Your task to perform on an android device: Open network settings Image 0: 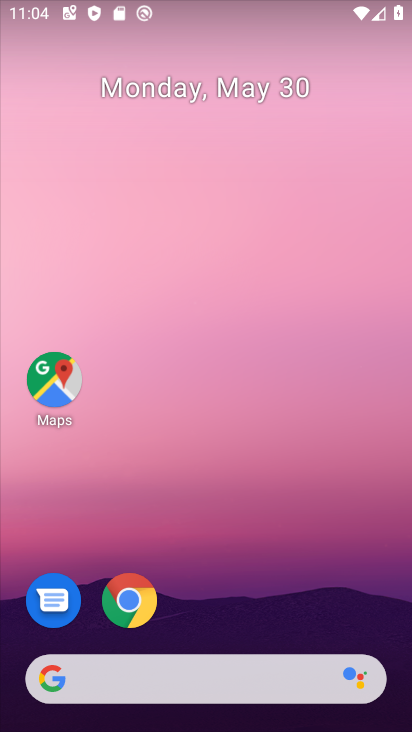
Step 0: drag from (230, 725) to (231, 88)
Your task to perform on an android device: Open network settings Image 1: 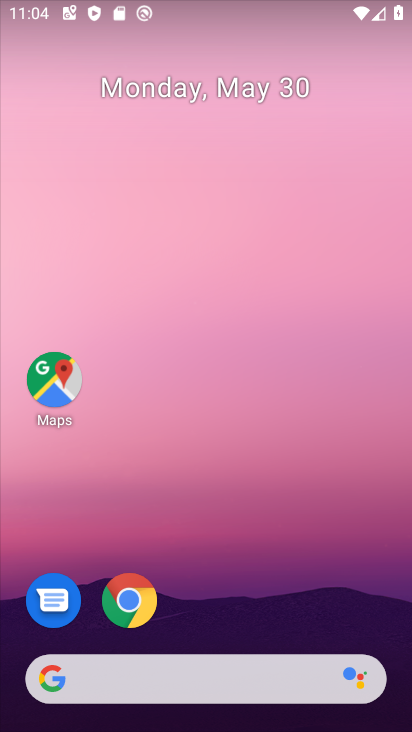
Step 1: drag from (212, 726) to (214, 94)
Your task to perform on an android device: Open network settings Image 2: 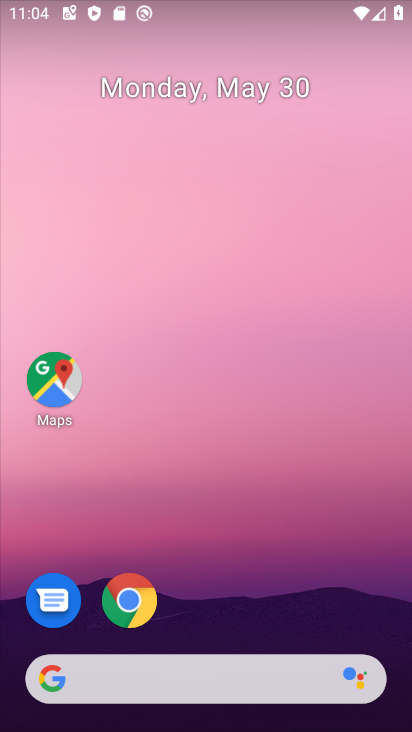
Step 2: drag from (243, 723) to (225, 36)
Your task to perform on an android device: Open network settings Image 3: 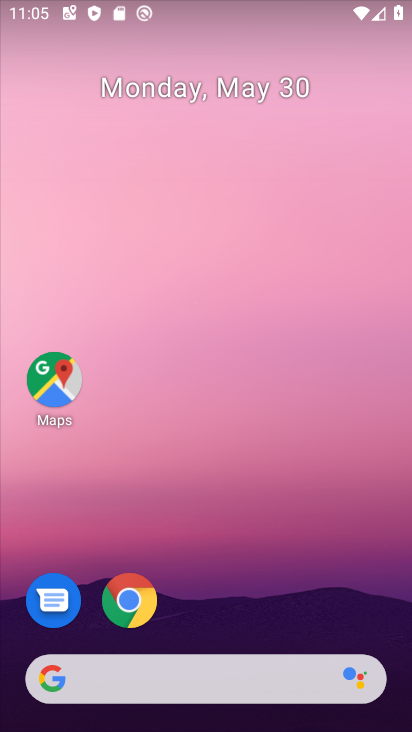
Step 3: drag from (243, 723) to (248, 41)
Your task to perform on an android device: Open network settings Image 4: 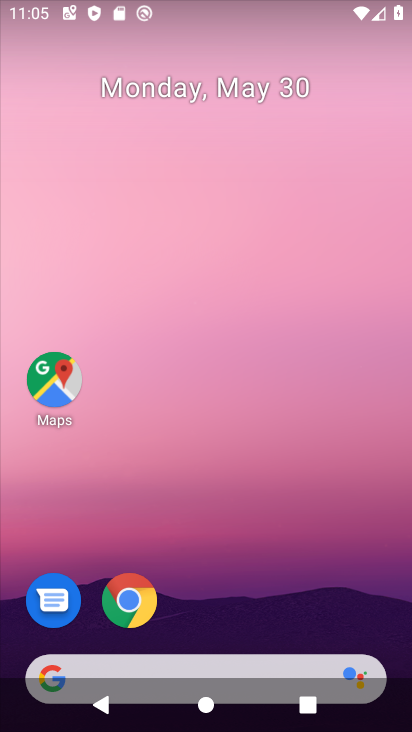
Step 4: drag from (220, 710) to (217, 139)
Your task to perform on an android device: Open network settings Image 5: 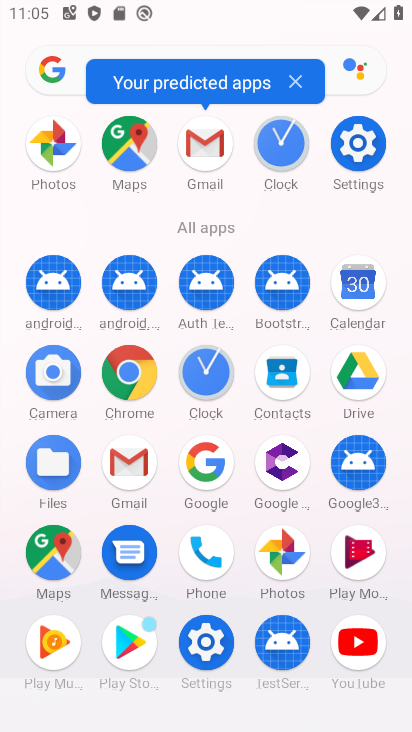
Step 5: click (350, 150)
Your task to perform on an android device: Open network settings Image 6: 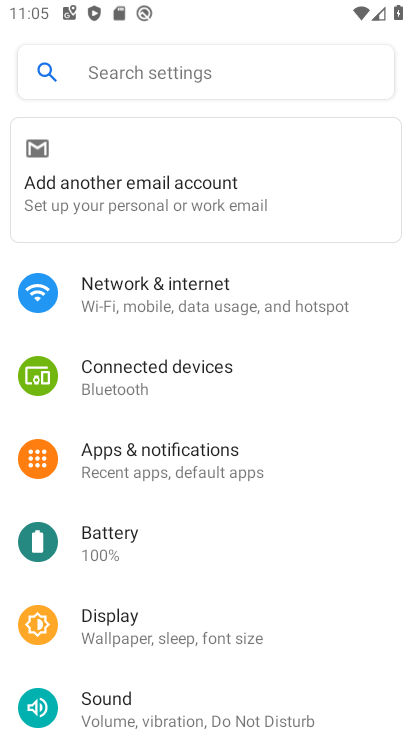
Step 6: click (137, 279)
Your task to perform on an android device: Open network settings Image 7: 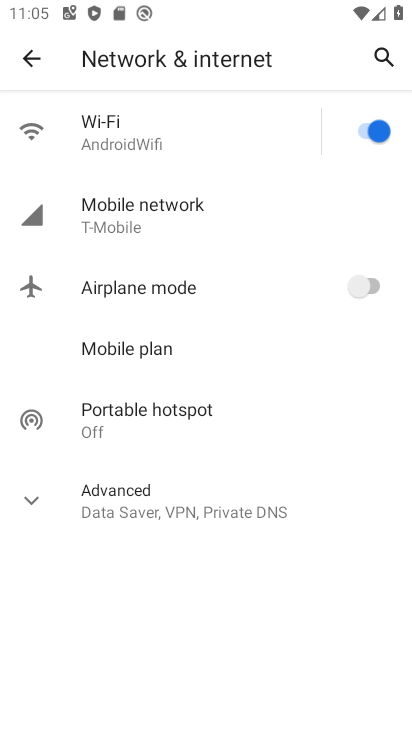
Step 7: task complete